Your task to perform on an android device: turn on data saver in the chrome app Image 0: 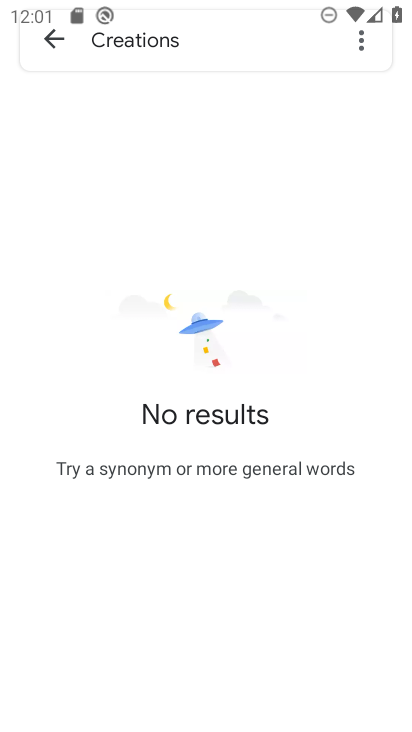
Step 0: press home button
Your task to perform on an android device: turn on data saver in the chrome app Image 1: 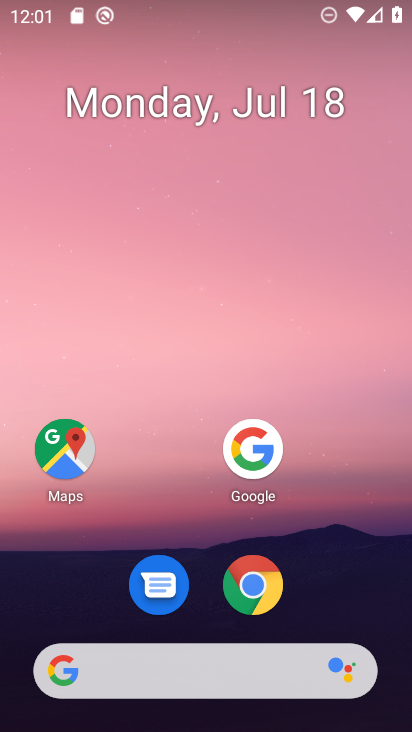
Step 1: click (246, 591)
Your task to perform on an android device: turn on data saver in the chrome app Image 2: 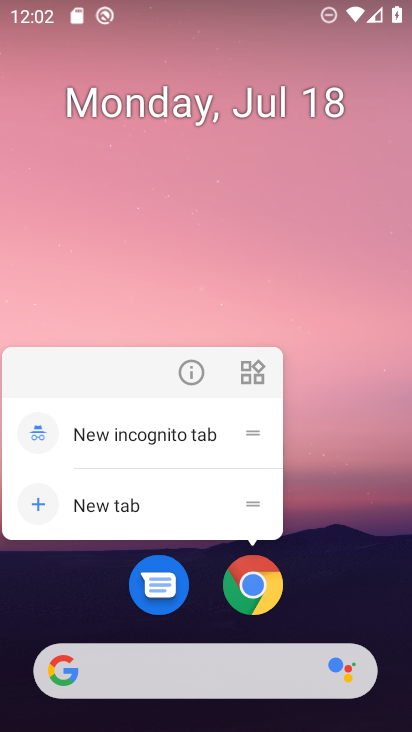
Step 2: click (250, 589)
Your task to perform on an android device: turn on data saver in the chrome app Image 3: 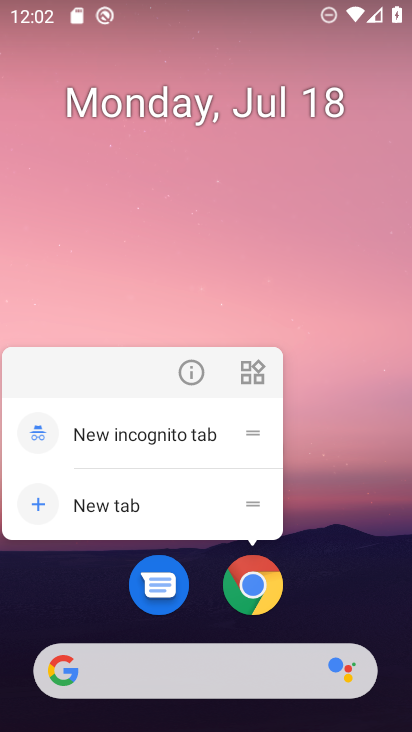
Step 3: click (255, 586)
Your task to perform on an android device: turn on data saver in the chrome app Image 4: 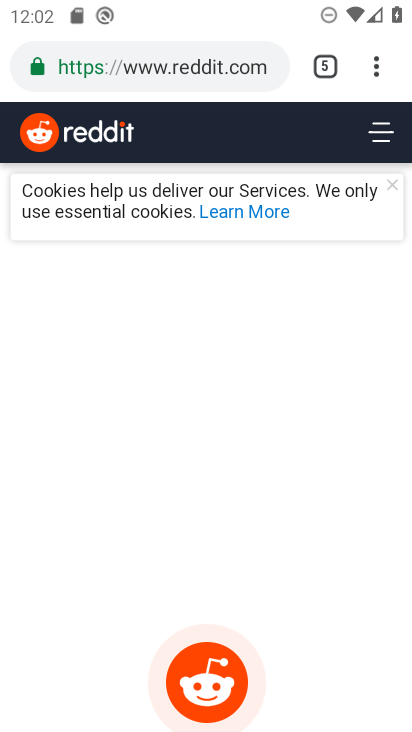
Step 4: drag from (373, 63) to (176, 590)
Your task to perform on an android device: turn on data saver in the chrome app Image 5: 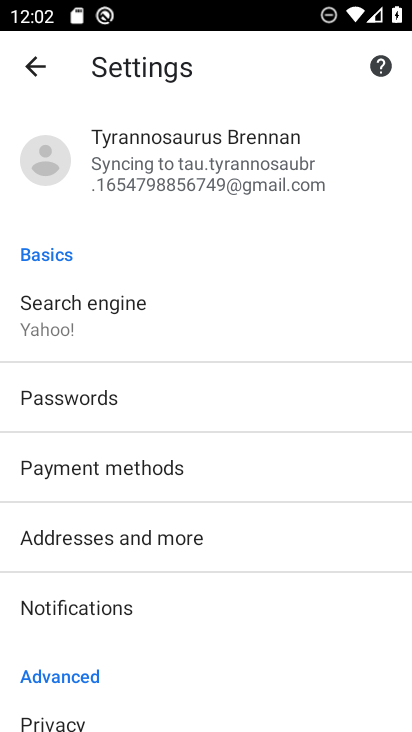
Step 5: drag from (151, 675) to (345, 171)
Your task to perform on an android device: turn on data saver in the chrome app Image 6: 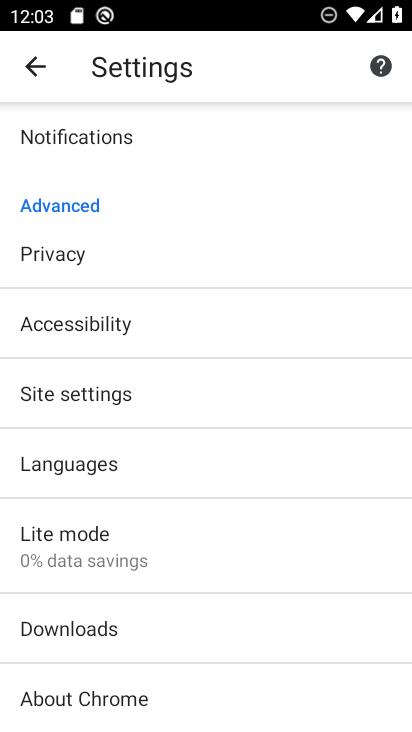
Step 6: click (111, 544)
Your task to perform on an android device: turn on data saver in the chrome app Image 7: 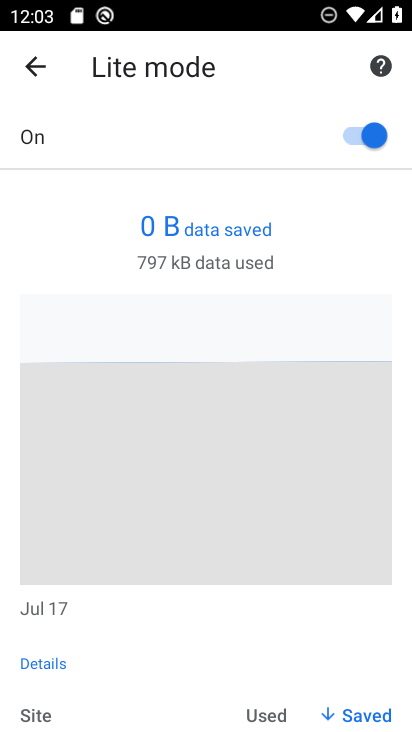
Step 7: task complete